Your task to perform on an android device: Set the phone to "Do not disturb". Image 0: 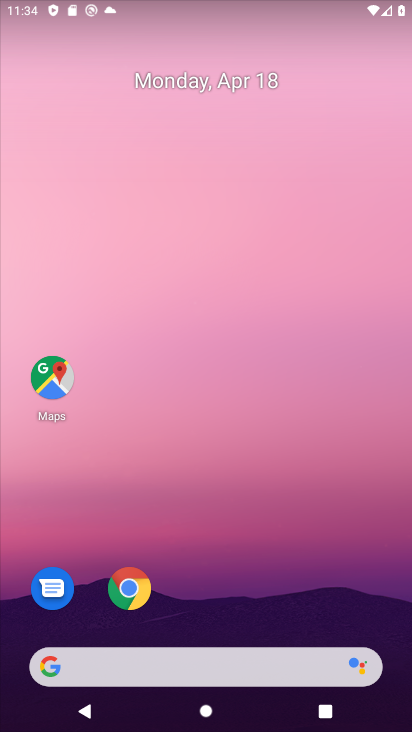
Step 0: click (212, 21)
Your task to perform on an android device: Set the phone to "Do not disturb". Image 1: 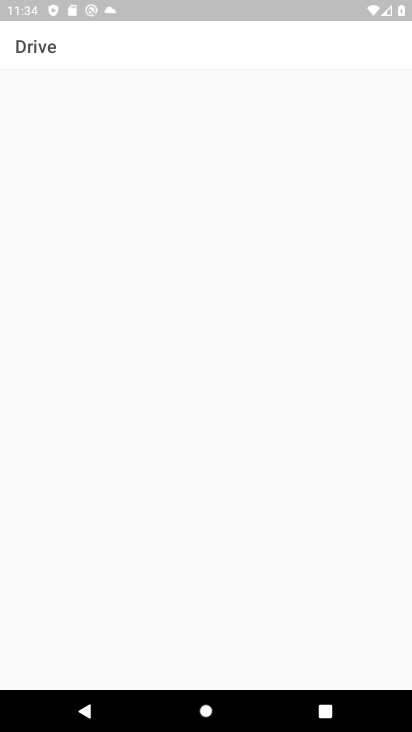
Step 1: press back button
Your task to perform on an android device: Set the phone to "Do not disturb". Image 2: 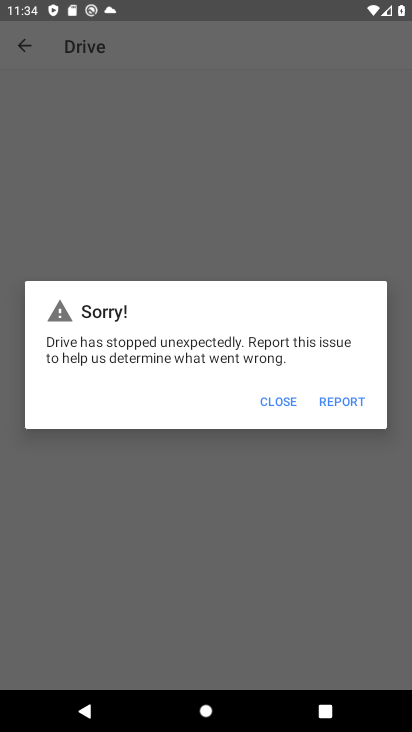
Step 2: press home button
Your task to perform on an android device: Set the phone to "Do not disturb". Image 3: 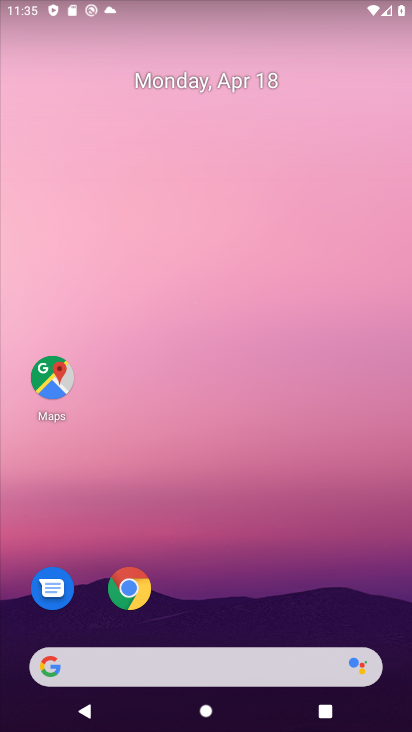
Step 3: drag from (232, 336) to (130, 3)
Your task to perform on an android device: Set the phone to "Do not disturb". Image 4: 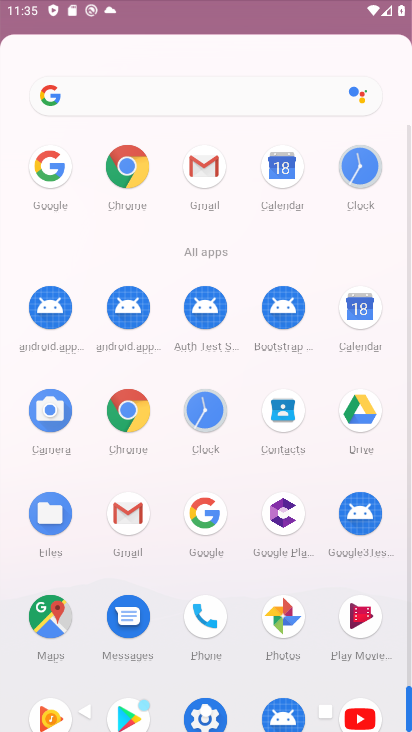
Step 4: drag from (8, 451) to (9, 332)
Your task to perform on an android device: Set the phone to "Do not disturb". Image 5: 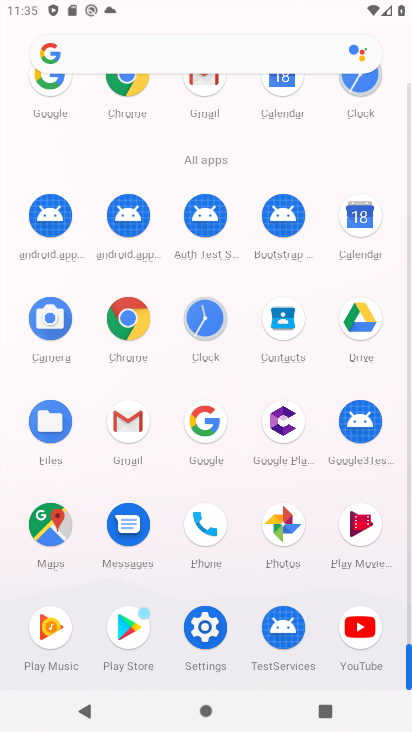
Step 5: click (205, 618)
Your task to perform on an android device: Set the phone to "Do not disturb". Image 6: 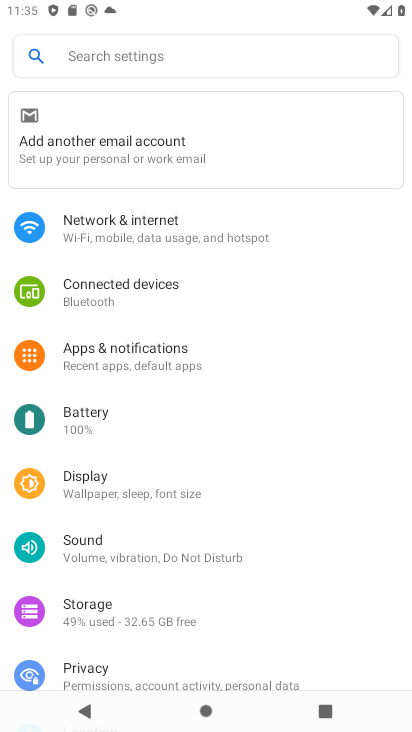
Step 6: click (217, 557)
Your task to perform on an android device: Set the phone to "Do not disturb". Image 7: 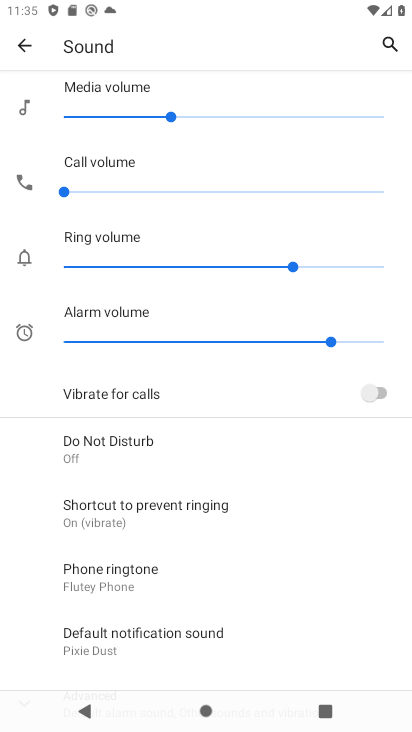
Step 7: click (141, 439)
Your task to perform on an android device: Set the phone to "Do not disturb". Image 8: 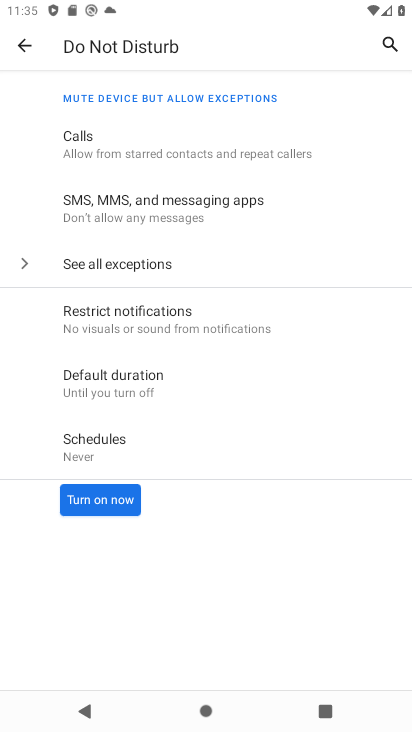
Step 8: click (116, 511)
Your task to perform on an android device: Set the phone to "Do not disturb". Image 9: 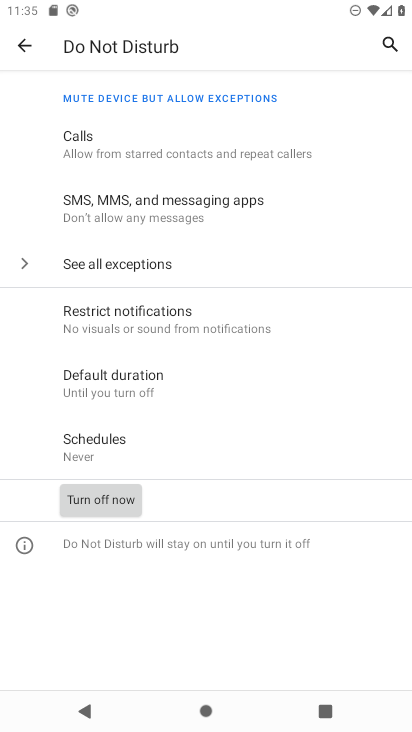
Step 9: task complete